Your task to perform on an android device: Open Google Maps Image 0: 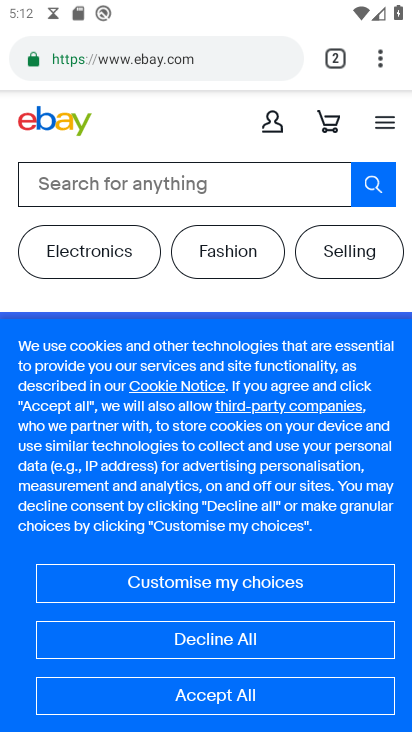
Step 0: press home button
Your task to perform on an android device: Open Google Maps Image 1: 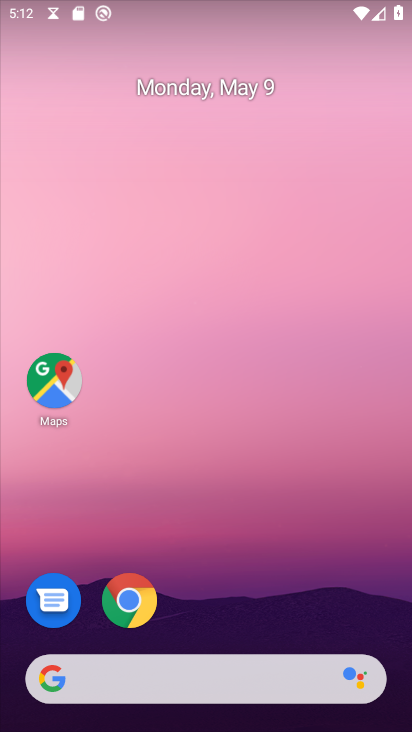
Step 1: drag from (210, 636) to (274, 2)
Your task to perform on an android device: Open Google Maps Image 2: 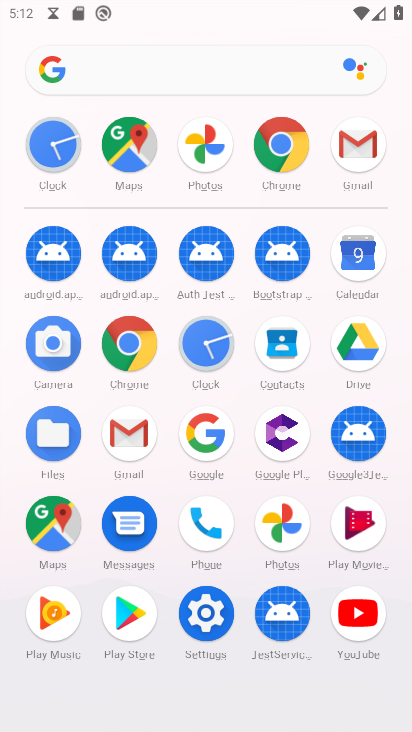
Step 2: click (59, 518)
Your task to perform on an android device: Open Google Maps Image 3: 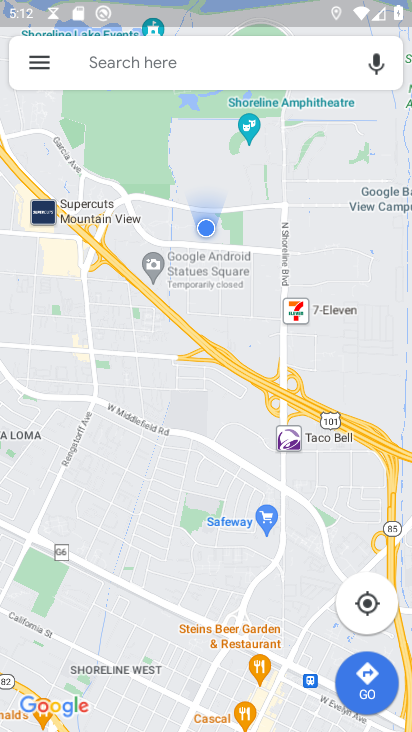
Step 3: task complete